Your task to perform on an android device: turn on wifi Image 0: 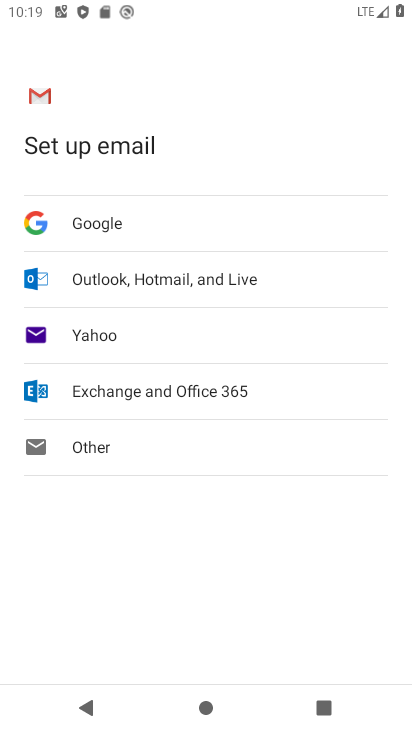
Step 0: press home button
Your task to perform on an android device: turn on wifi Image 1: 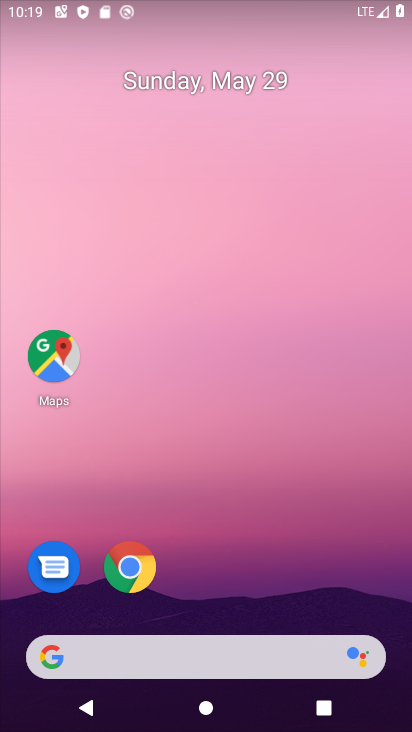
Step 1: drag from (381, 609) to (270, 122)
Your task to perform on an android device: turn on wifi Image 2: 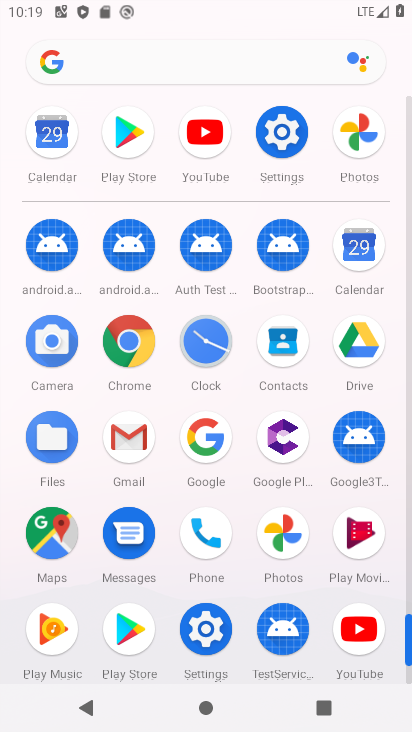
Step 2: click (206, 619)
Your task to perform on an android device: turn on wifi Image 3: 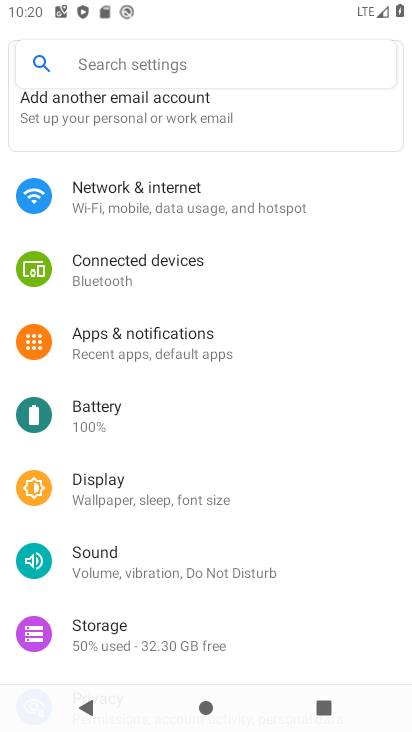
Step 3: click (140, 189)
Your task to perform on an android device: turn on wifi Image 4: 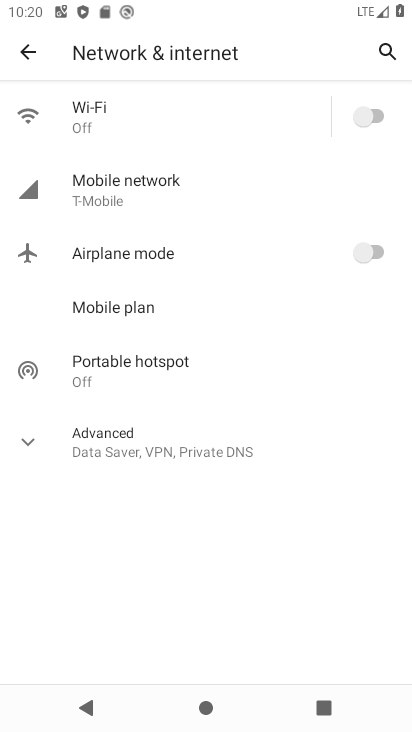
Step 4: click (376, 113)
Your task to perform on an android device: turn on wifi Image 5: 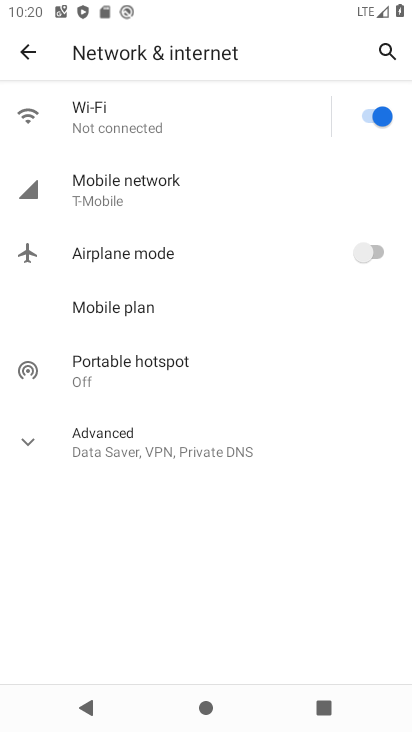
Step 5: task complete